Your task to perform on an android device: turn pop-ups off in chrome Image 0: 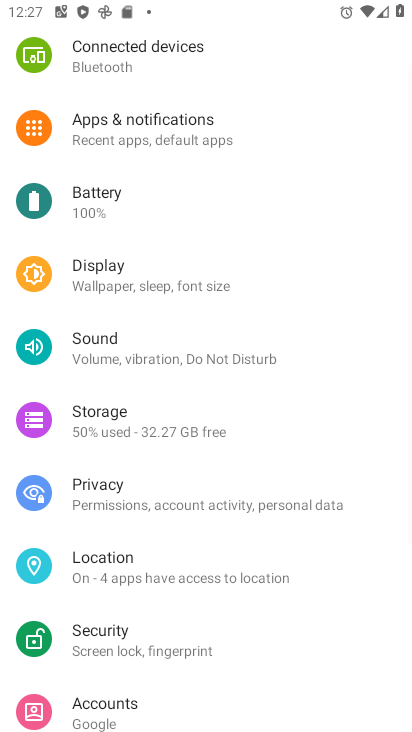
Step 0: press home button
Your task to perform on an android device: turn pop-ups off in chrome Image 1: 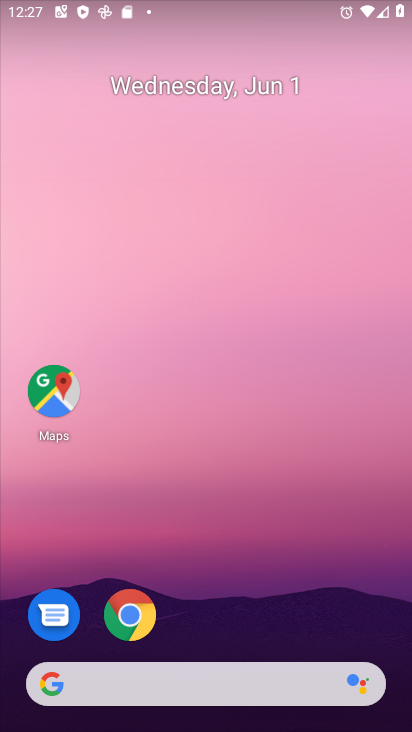
Step 1: drag from (319, 613) to (371, 31)
Your task to perform on an android device: turn pop-ups off in chrome Image 2: 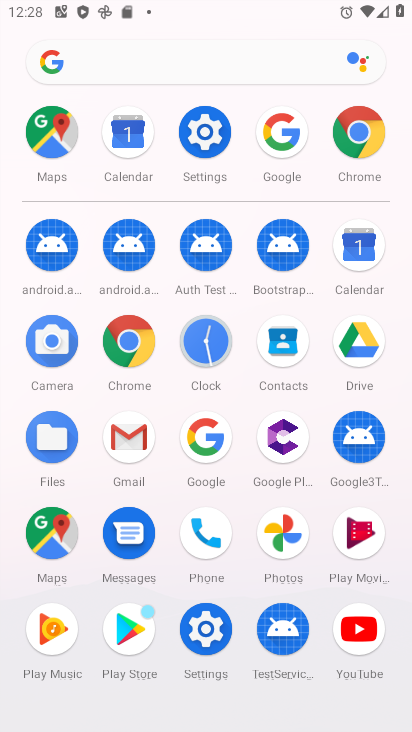
Step 2: click (356, 141)
Your task to perform on an android device: turn pop-ups off in chrome Image 3: 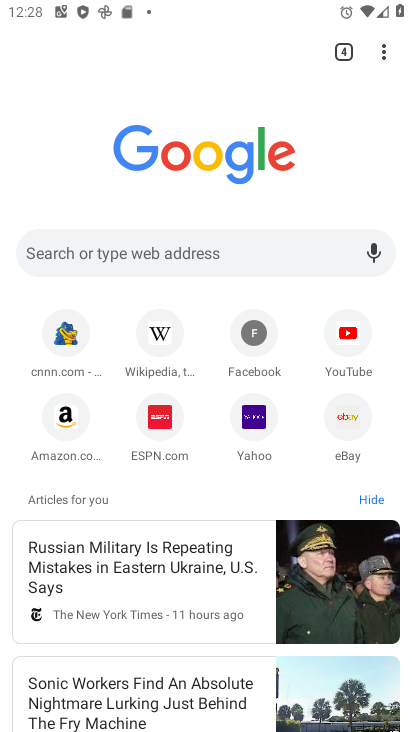
Step 3: drag from (385, 58) to (220, 430)
Your task to perform on an android device: turn pop-ups off in chrome Image 4: 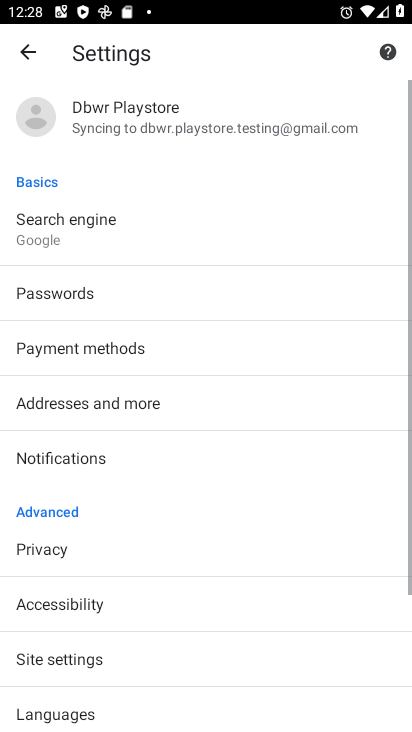
Step 4: drag from (127, 570) to (211, 34)
Your task to perform on an android device: turn pop-ups off in chrome Image 5: 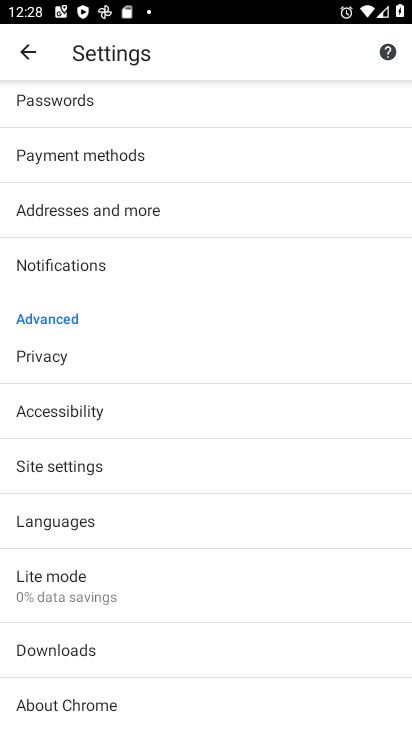
Step 5: click (50, 450)
Your task to perform on an android device: turn pop-ups off in chrome Image 6: 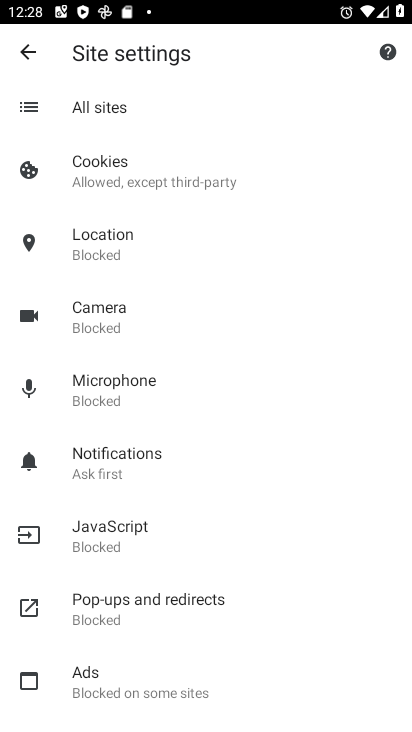
Step 6: click (110, 611)
Your task to perform on an android device: turn pop-ups off in chrome Image 7: 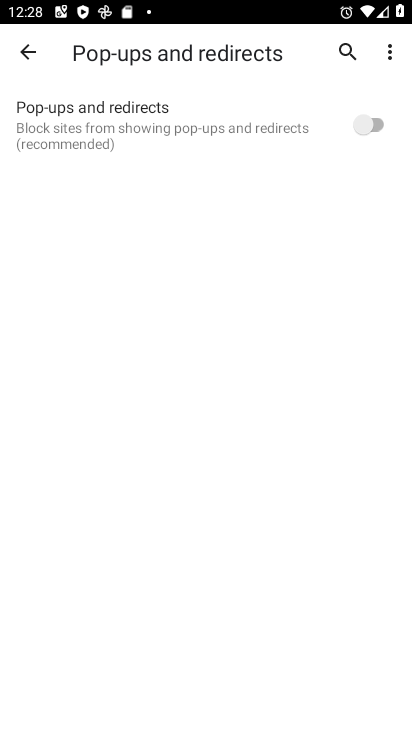
Step 7: task complete